Your task to perform on an android device: set an alarm Image 0: 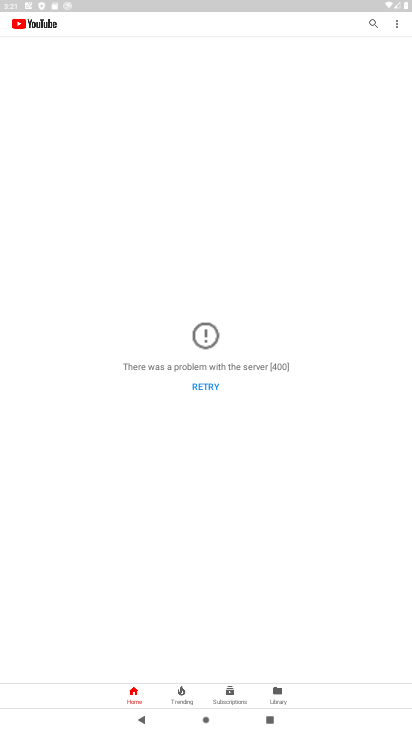
Step 0: press home button
Your task to perform on an android device: set an alarm Image 1: 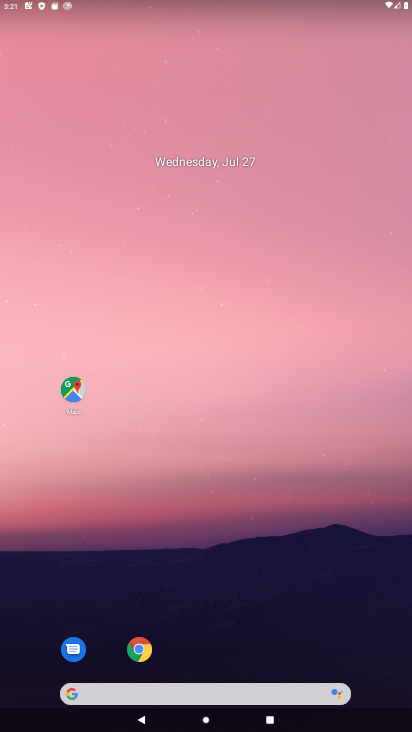
Step 1: drag from (371, 641) to (313, 214)
Your task to perform on an android device: set an alarm Image 2: 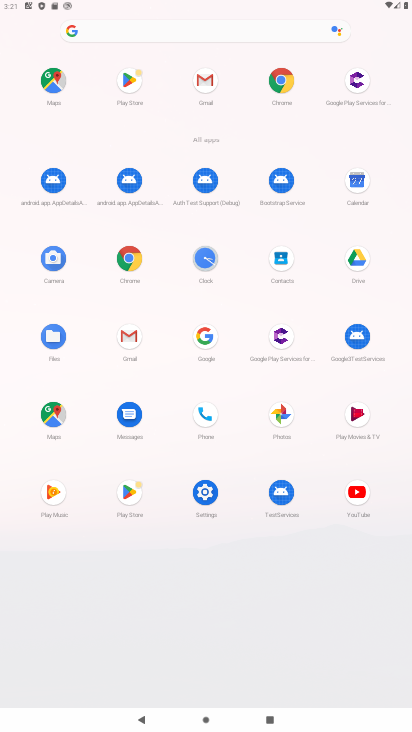
Step 2: click (203, 258)
Your task to perform on an android device: set an alarm Image 3: 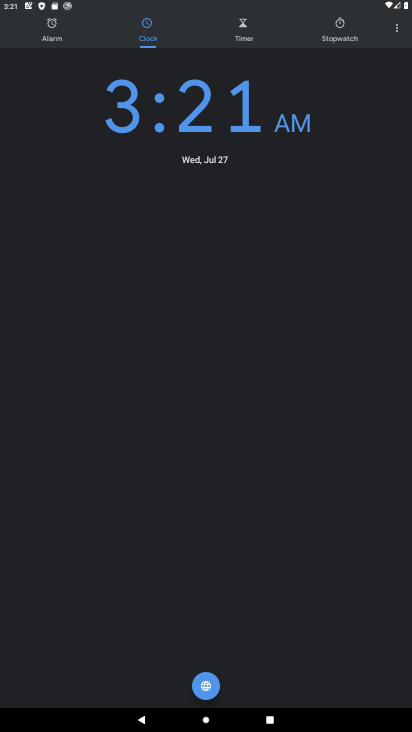
Step 3: click (55, 32)
Your task to perform on an android device: set an alarm Image 4: 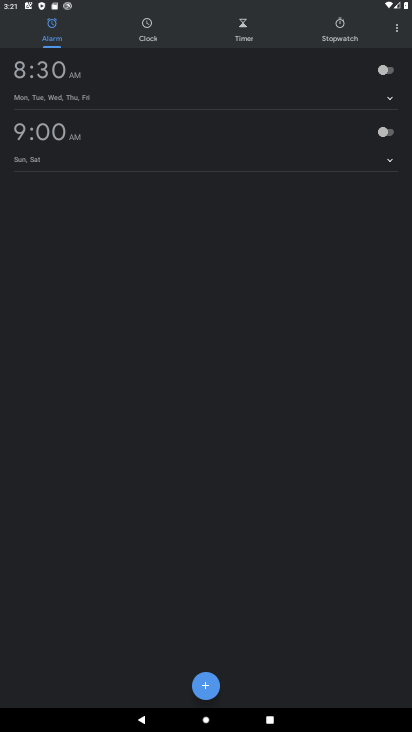
Step 4: click (37, 84)
Your task to perform on an android device: set an alarm Image 5: 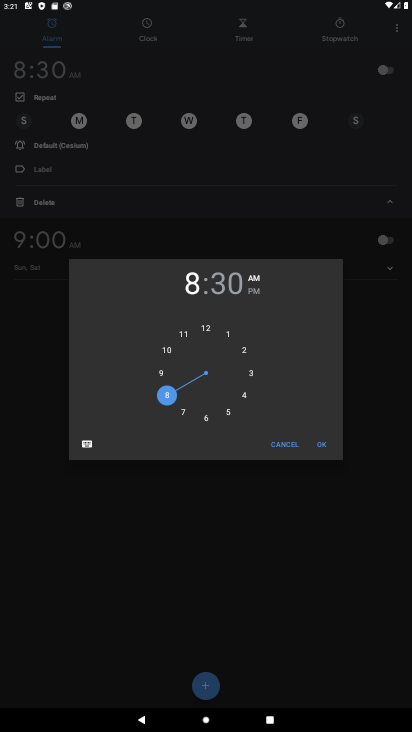
Step 5: click (205, 414)
Your task to perform on an android device: set an alarm Image 6: 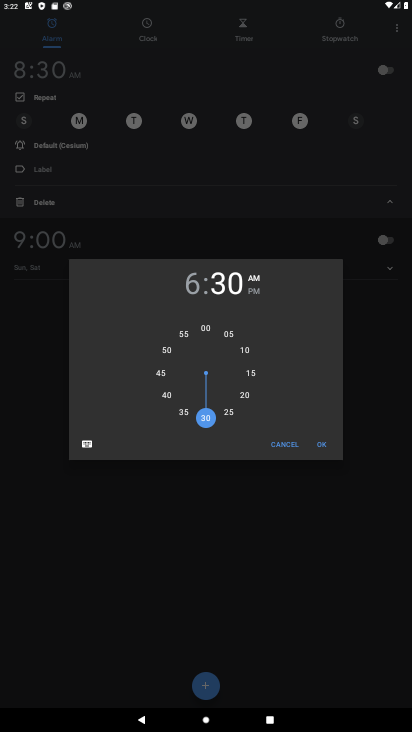
Step 6: click (321, 446)
Your task to perform on an android device: set an alarm Image 7: 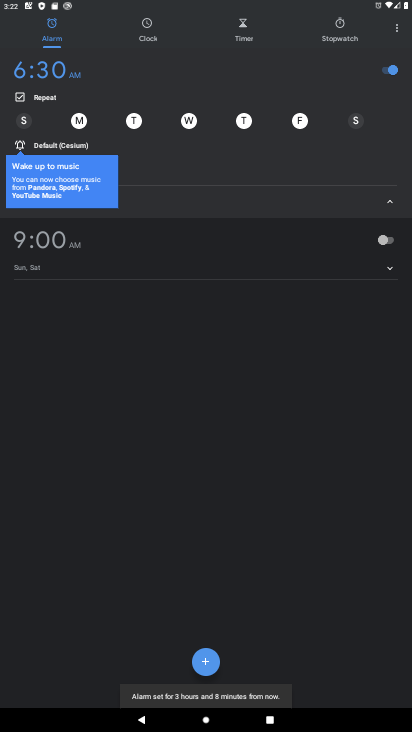
Step 7: click (358, 121)
Your task to perform on an android device: set an alarm Image 8: 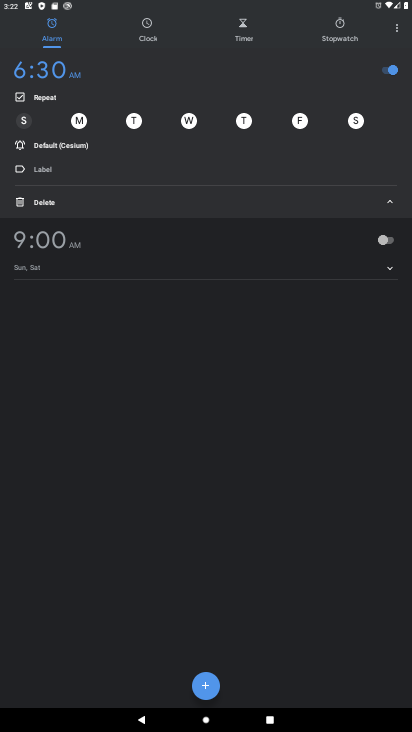
Step 8: click (389, 201)
Your task to perform on an android device: set an alarm Image 9: 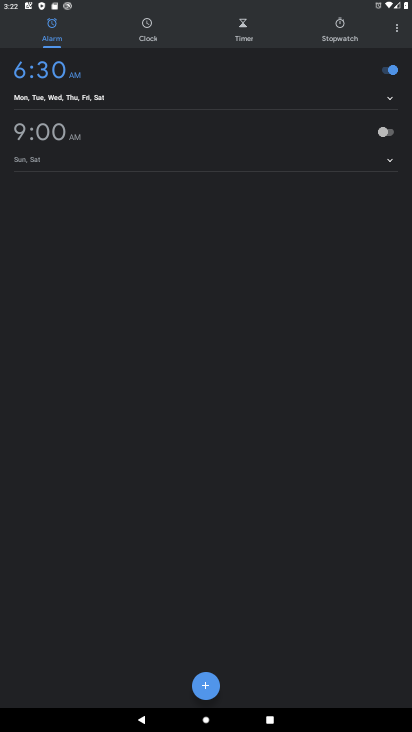
Step 9: task complete